Your task to perform on an android device: View the shopping cart on costco. Search for "beats solo 3" on costco, select the first entry, and add it to the cart. Image 0: 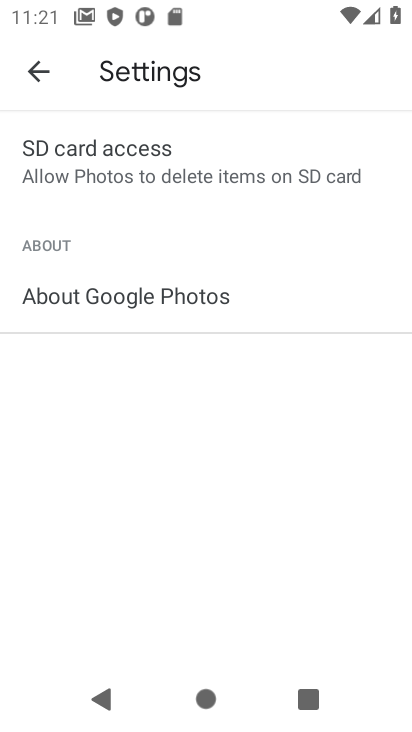
Step 0: press home button
Your task to perform on an android device: View the shopping cart on costco. Search for "beats solo 3" on costco, select the first entry, and add it to the cart. Image 1: 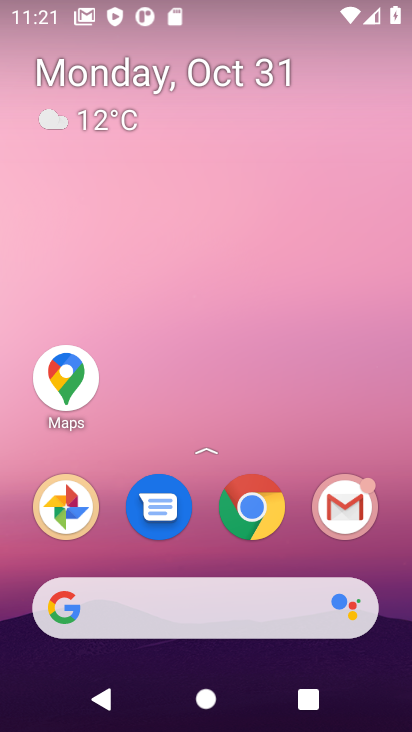
Step 1: drag from (203, 551) to (293, 2)
Your task to perform on an android device: View the shopping cart on costco. Search for "beats solo 3" on costco, select the first entry, and add it to the cart. Image 2: 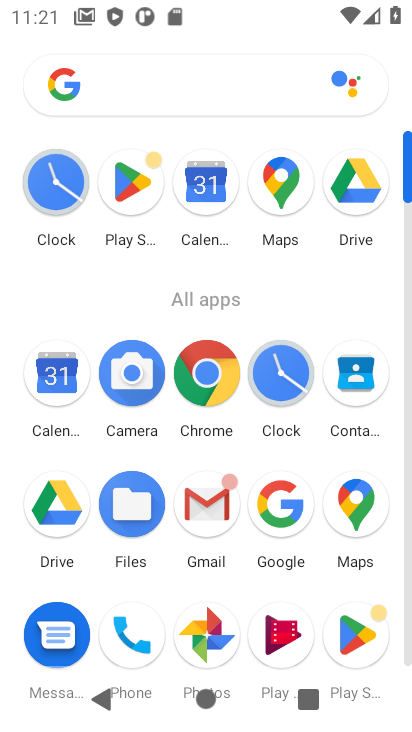
Step 2: click (205, 378)
Your task to perform on an android device: View the shopping cart on costco. Search for "beats solo 3" on costco, select the first entry, and add it to the cart. Image 3: 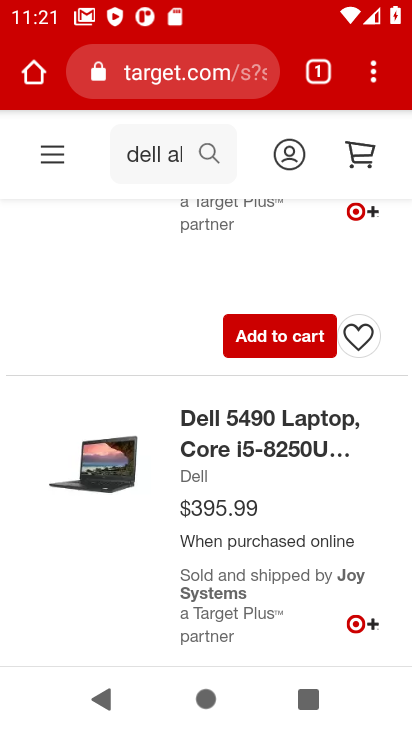
Step 3: click (209, 67)
Your task to perform on an android device: View the shopping cart on costco. Search for "beats solo 3" on costco, select the first entry, and add it to the cart. Image 4: 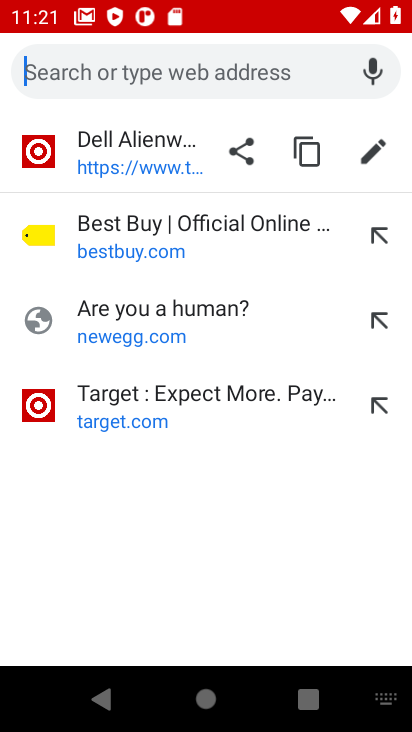
Step 4: type "costco.com"
Your task to perform on an android device: View the shopping cart on costco. Search for "beats solo 3" on costco, select the first entry, and add it to the cart. Image 5: 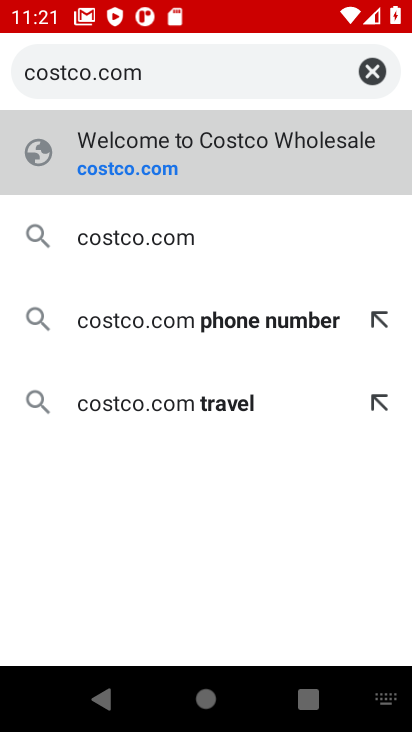
Step 5: click (173, 172)
Your task to perform on an android device: View the shopping cart on costco. Search for "beats solo 3" on costco, select the first entry, and add it to the cart. Image 6: 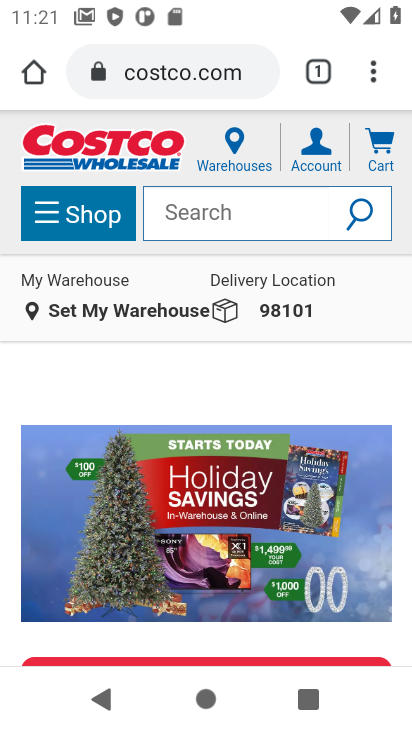
Step 6: click (379, 151)
Your task to perform on an android device: View the shopping cart on costco. Search for "beats solo 3" on costco, select the first entry, and add it to the cart. Image 7: 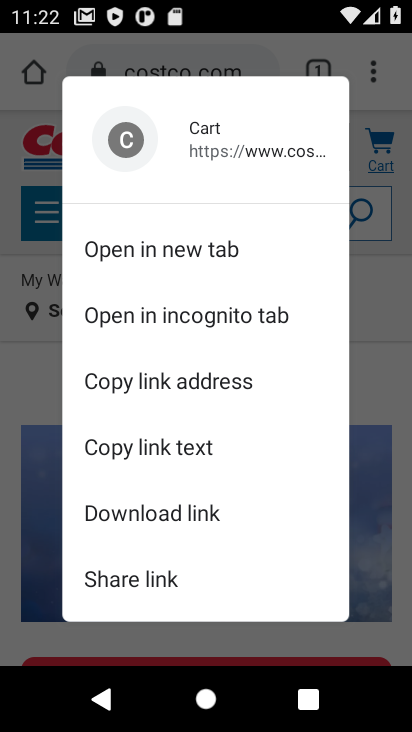
Step 7: click (398, 133)
Your task to perform on an android device: View the shopping cart on costco. Search for "beats solo 3" on costco, select the first entry, and add it to the cart. Image 8: 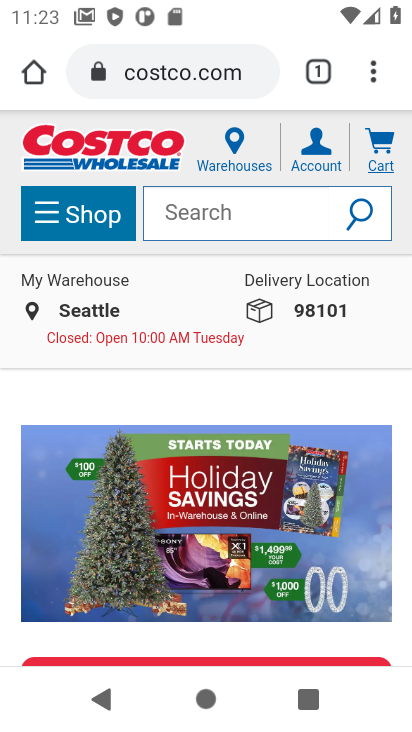
Step 8: click (374, 153)
Your task to perform on an android device: View the shopping cart on costco. Search for "beats solo 3" on costco, select the first entry, and add it to the cart. Image 9: 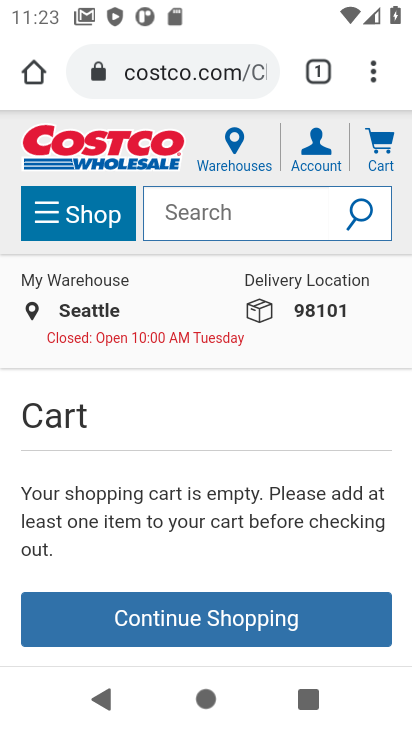
Step 9: click (232, 224)
Your task to perform on an android device: View the shopping cart on costco. Search for "beats solo 3" on costco, select the first entry, and add it to the cart. Image 10: 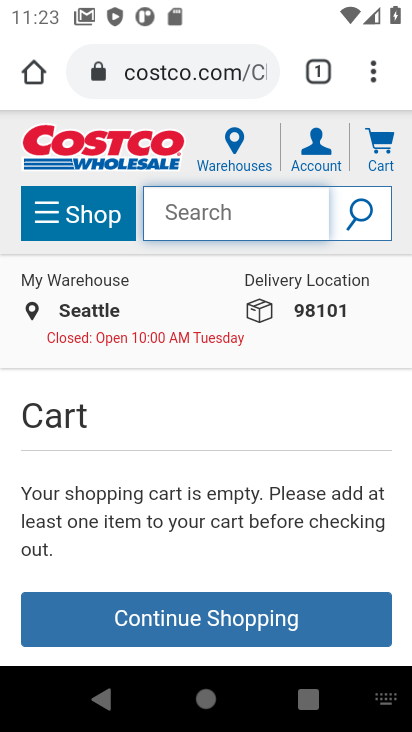
Step 10: click (212, 230)
Your task to perform on an android device: View the shopping cart on costco. Search for "beats solo 3" on costco, select the first entry, and add it to the cart. Image 11: 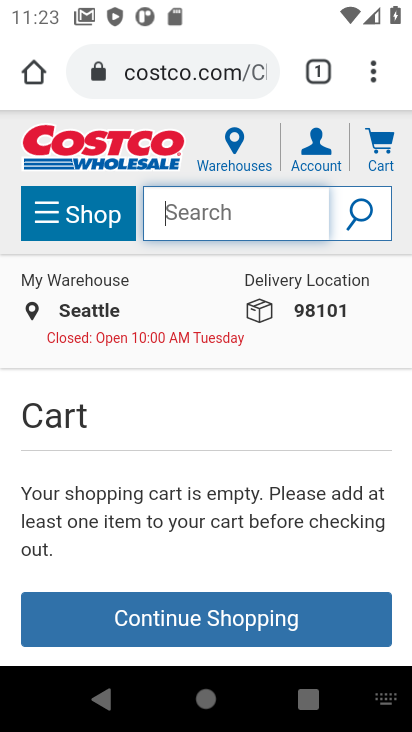
Step 11: click (285, 194)
Your task to perform on an android device: View the shopping cart on costco. Search for "beats solo 3" on costco, select the first entry, and add it to the cart. Image 12: 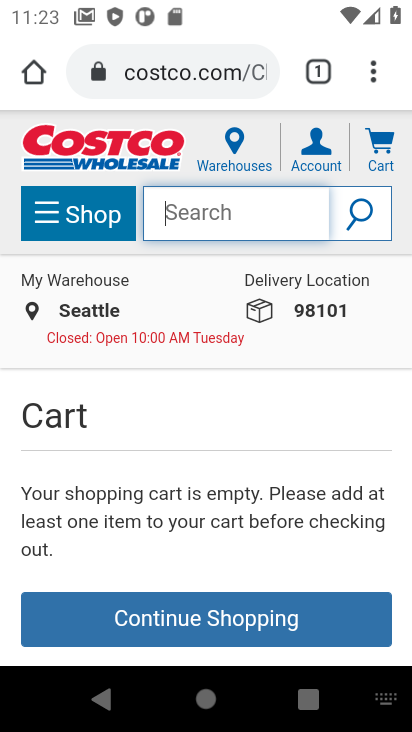
Step 12: type "beats solo 3"
Your task to perform on an android device: View the shopping cart on costco. Search for "beats solo 3" on costco, select the first entry, and add it to the cart. Image 13: 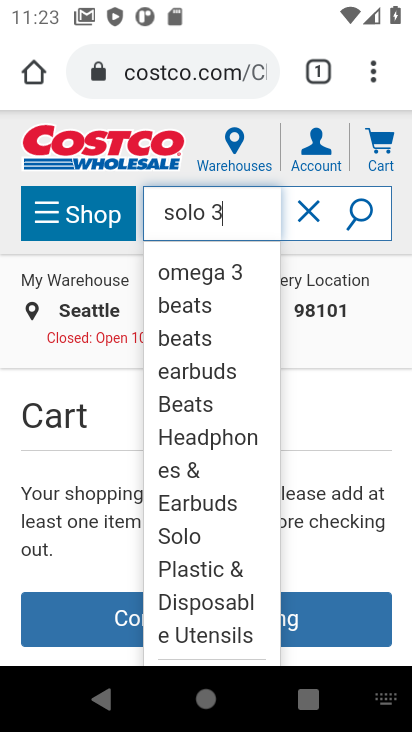
Step 13: press enter
Your task to perform on an android device: View the shopping cart on costco. Search for "beats solo 3" on costco, select the first entry, and add it to the cart. Image 14: 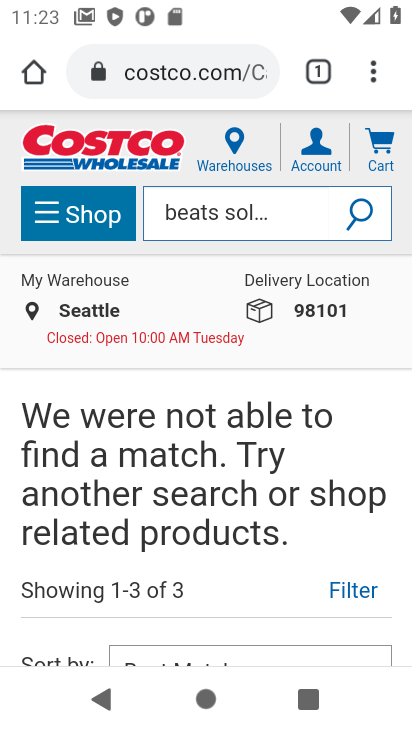
Step 14: task complete